Your task to perform on an android device: Search for seafood restaurants on Google Maps Image 0: 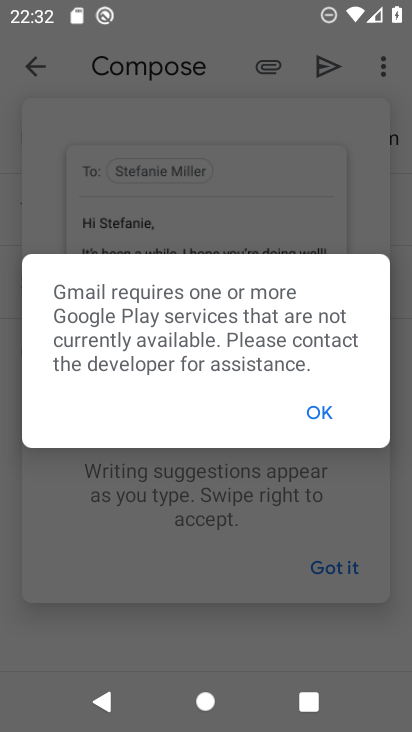
Step 0: press home button
Your task to perform on an android device: Search for seafood restaurants on Google Maps Image 1: 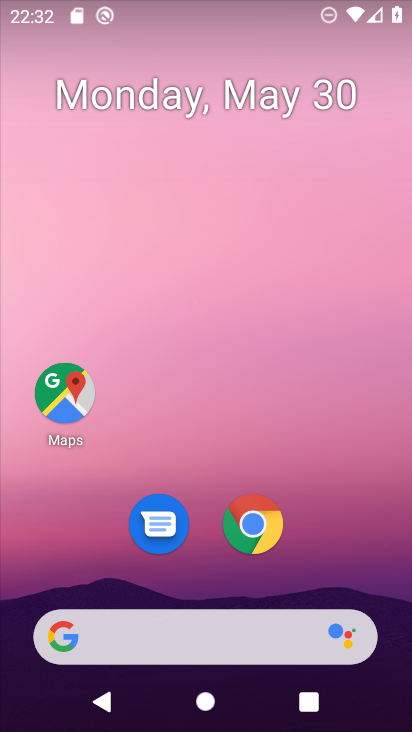
Step 1: drag from (217, 479) to (200, 52)
Your task to perform on an android device: Search for seafood restaurants on Google Maps Image 2: 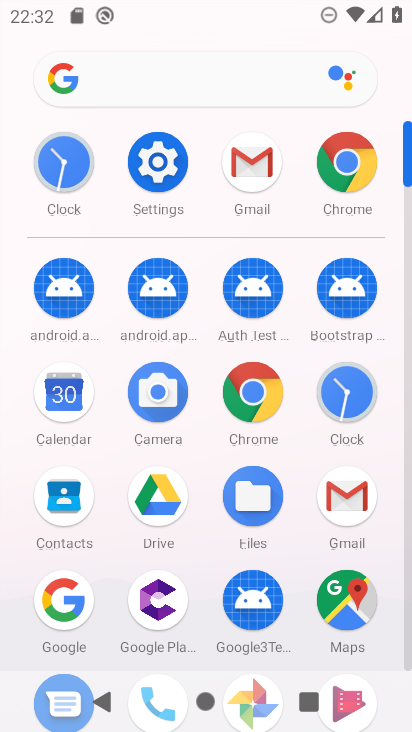
Step 2: click (334, 599)
Your task to perform on an android device: Search for seafood restaurants on Google Maps Image 3: 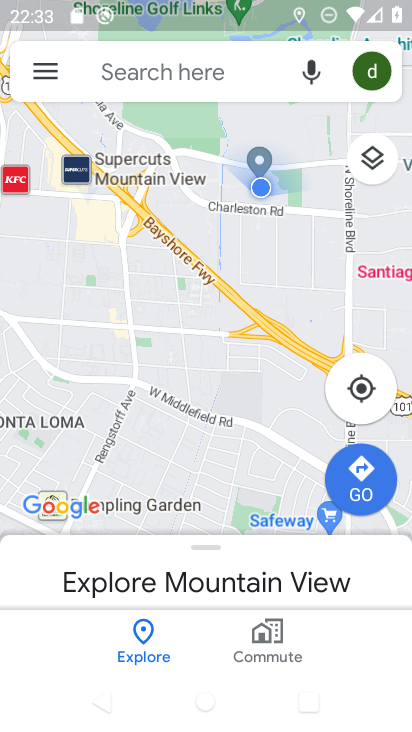
Step 3: click (179, 75)
Your task to perform on an android device: Search for seafood restaurants on Google Maps Image 4: 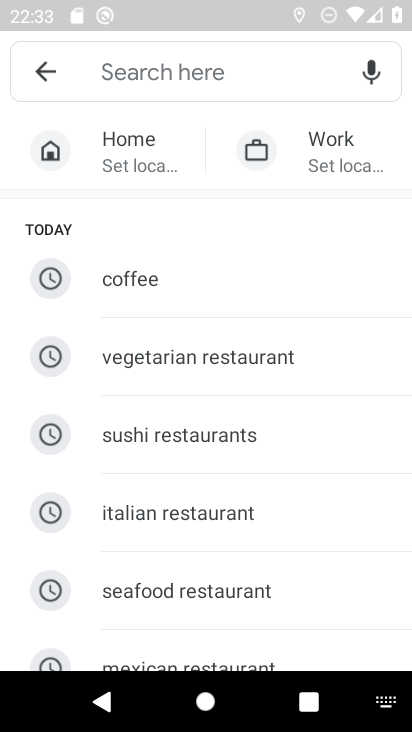
Step 4: click (183, 580)
Your task to perform on an android device: Search for seafood restaurants on Google Maps Image 5: 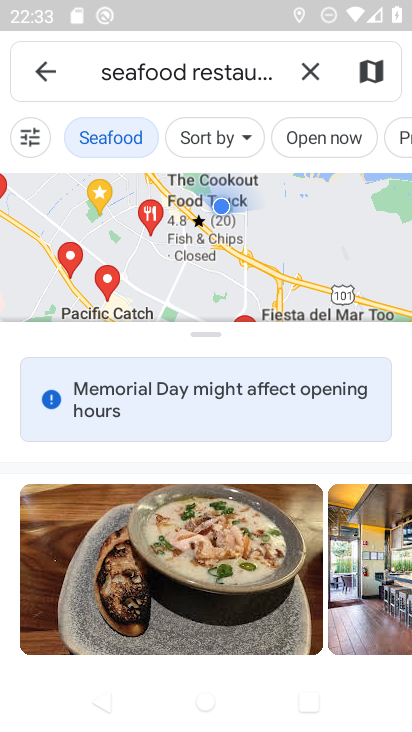
Step 5: task complete